Your task to perform on an android device: turn off location history Image 0: 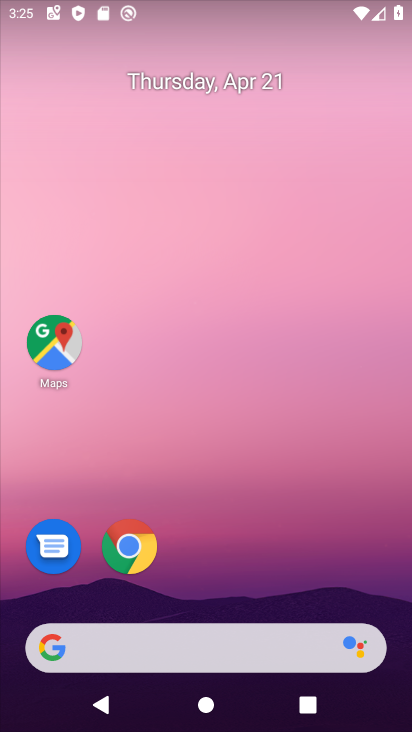
Step 0: drag from (245, 428) to (323, 123)
Your task to perform on an android device: turn off location history Image 1: 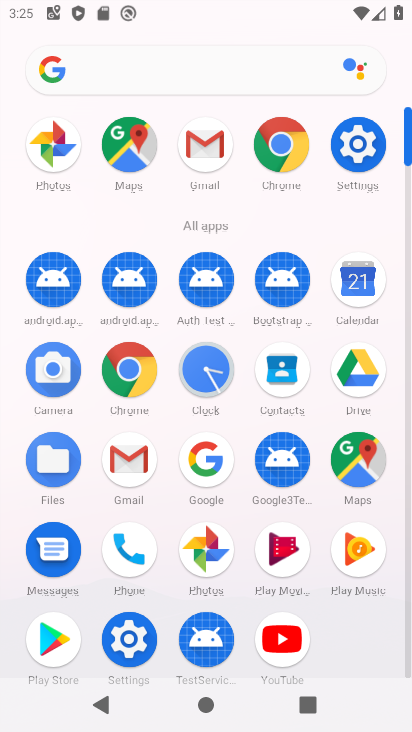
Step 1: click (135, 649)
Your task to perform on an android device: turn off location history Image 2: 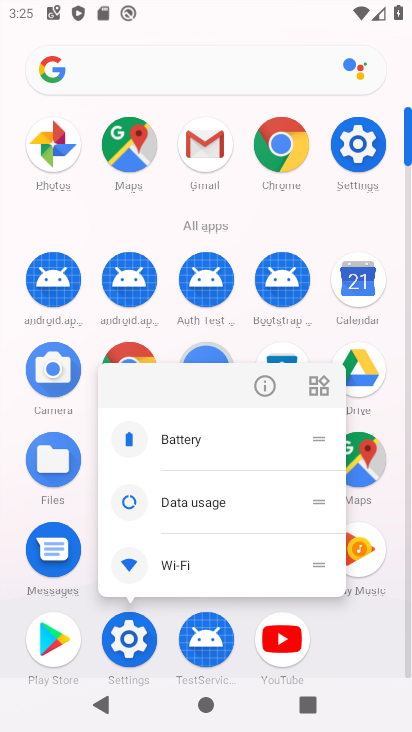
Step 2: click (141, 636)
Your task to perform on an android device: turn off location history Image 3: 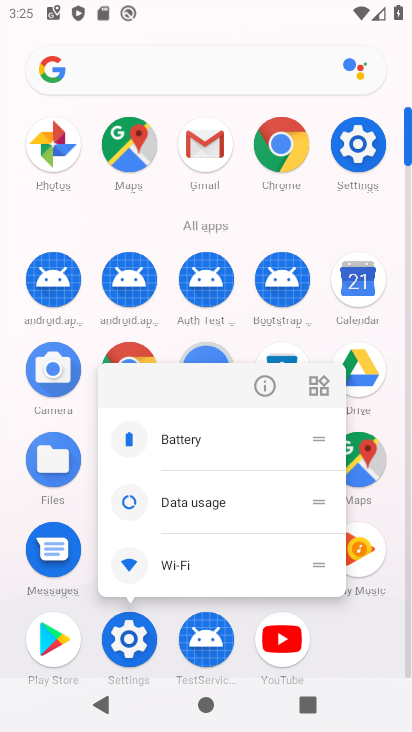
Step 3: click (139, 635)
Your task to perform on an android device: turn off location history Image 4: 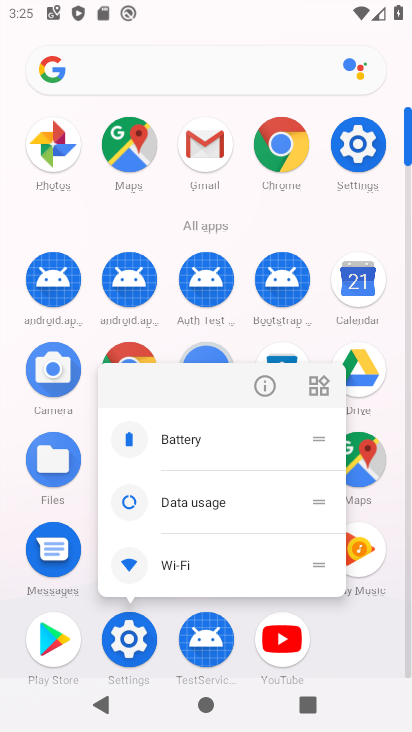
Step 4: click (129, 643)
Your task to perform on an android device: turn off location history Image 5: 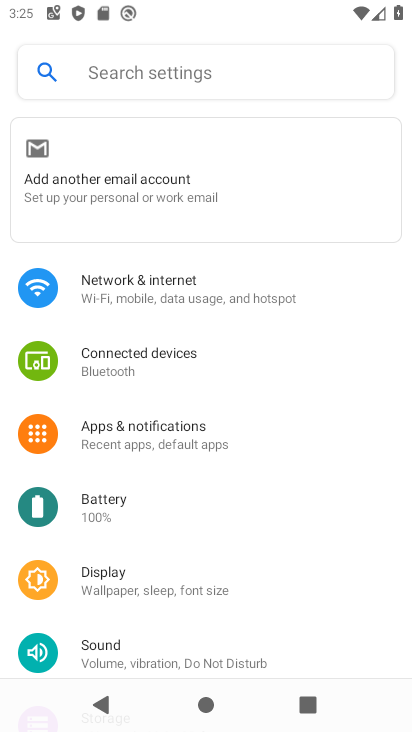
Step 5: drag from (122, 587) to (264, 179)
Your task to perform on an android device: turn off location history Image 6: 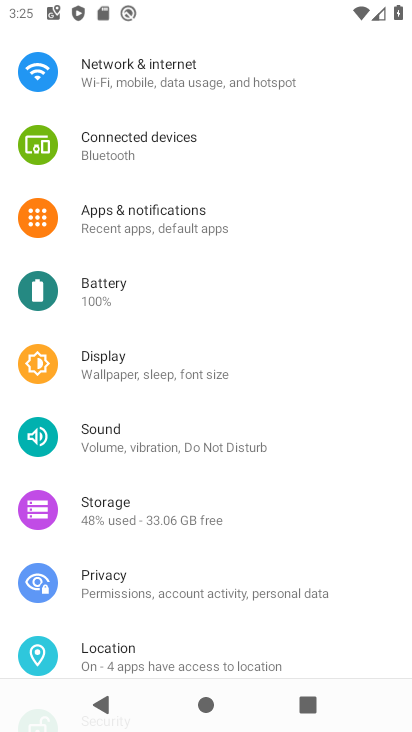
Step 6: drag from (169, 551) to (232, 329)
Your task to perform on an android device: turn off location history Image 7: 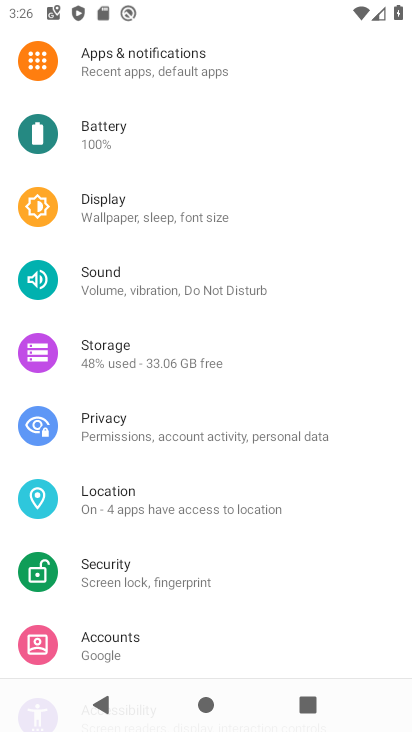
Step 7: click (162, 511)
Your task to perform on an android device: turn off location history Image 8: 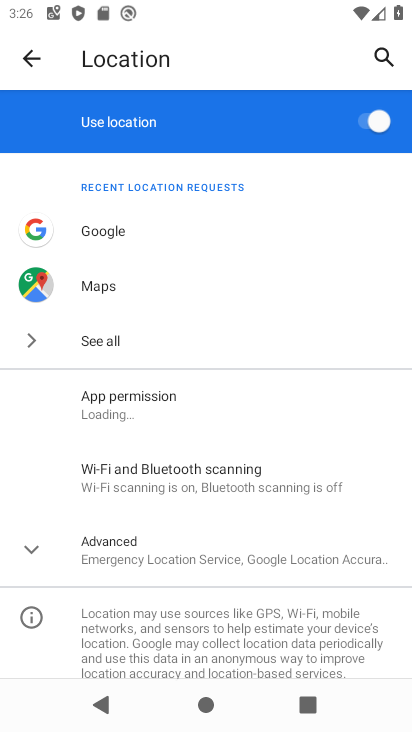
Step 8: click (209, 558)
Your task to perform on an android device: turn off location history Image 9: 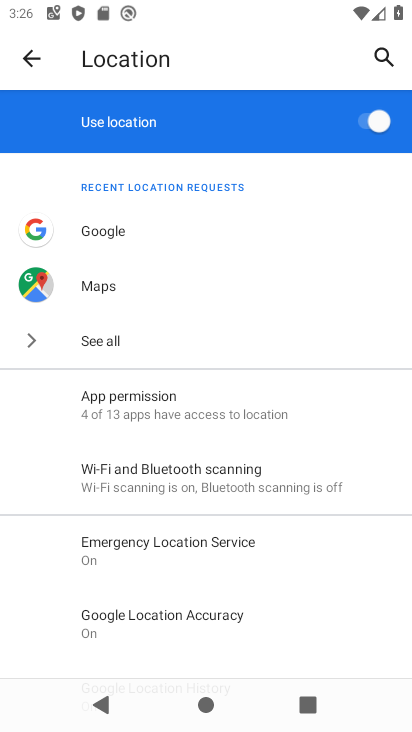
Step 9: drag from (197, 643) to (307, 277)
Your task to perform on an android device: turn off location history Image 10: 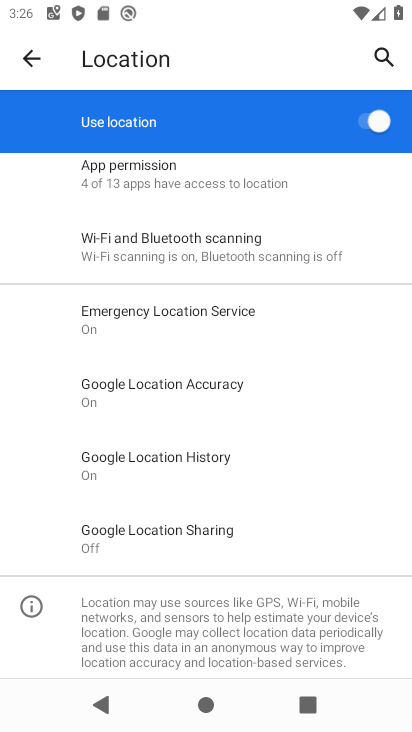
Step 10: click (218, 471)
Your task to perform on an android device: turn off location history Image 11: 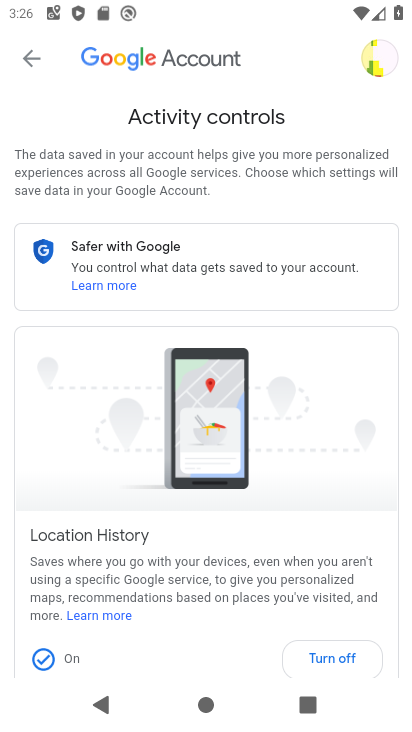
Step 11: drag from (215, 583) to (320, 335)
Your task to perform on an android device: turn off location history Image 12: 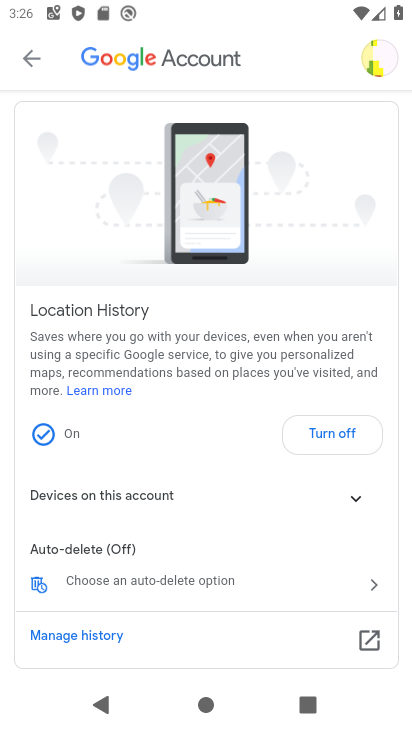
Step 12: click (341, 443)
Your task to perform on an android device: turn off location history Image 13: 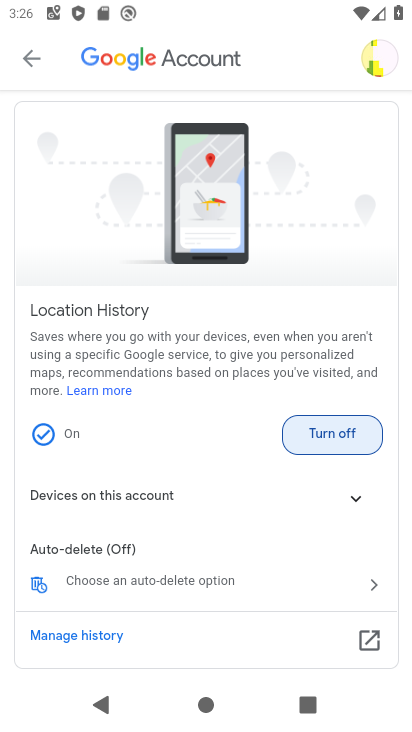
Step 13: click (334, 443)
Your task to perform on an android device: turn off location history Image 14: 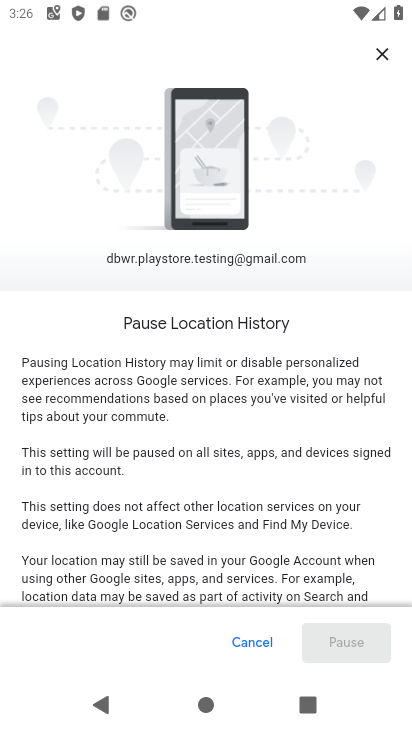
Step 14: drag from (243, 564) to (403, 568)
Your task to perform on an android device: turn off location history Image 15: 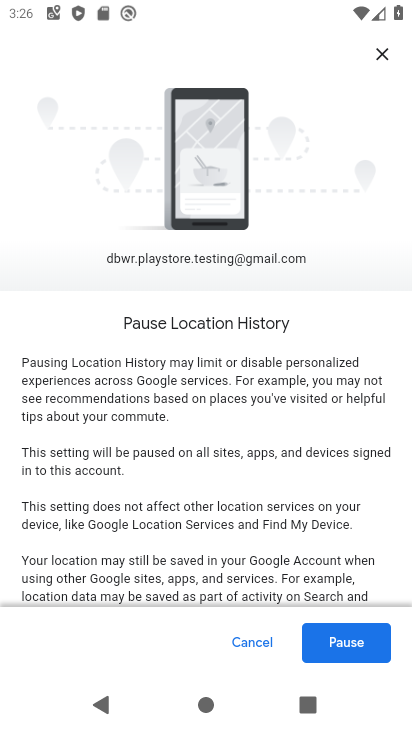
Step 15: drag from (224, 532) to (410, 152)
Your task to perform on an android device: turn off location history Image 16: 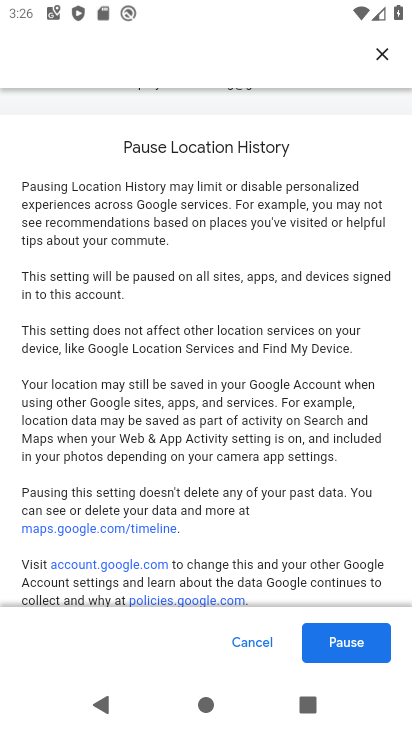
Step 16: click (342, 648)
Your task to perform on an android device: turn off location history Image 17: 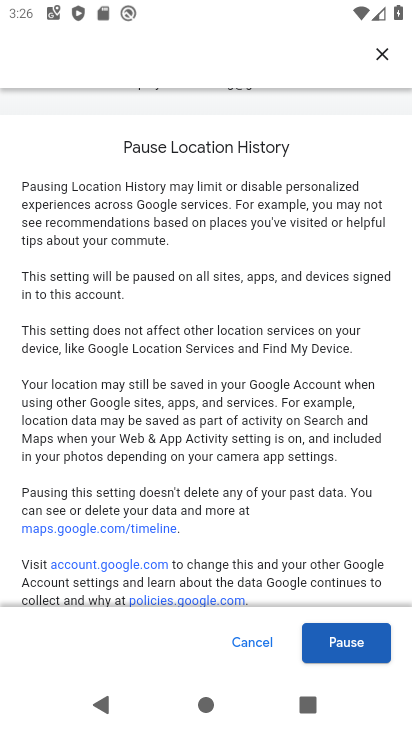
Step 17: click (347, 651)
Your task to perform on an android device: turn off location history Image 18: 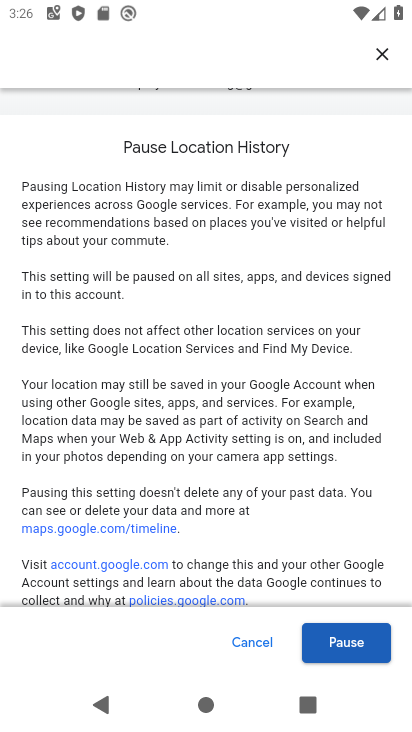
Step 18: click (347, 651)
Your task to perform on an android device: turn off location history Image 19: 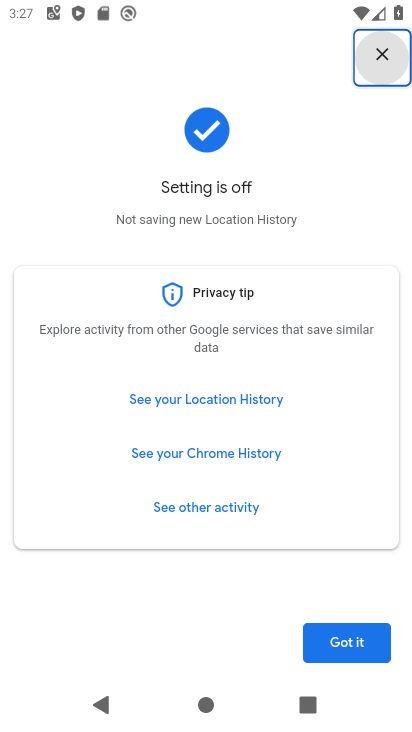
Step 19: click (365, 643)
Your task to perform on an android device: turn off location history Image 20: 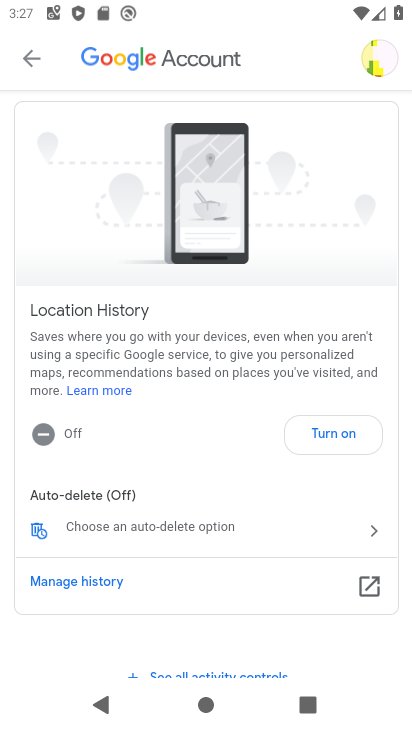
Step 20: task complete